Your task to perform on an android device: change notifications settings Image 0: 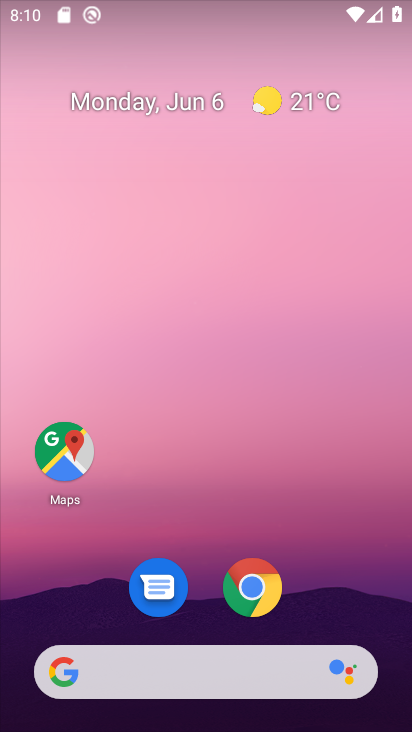
Step 0: drag from (298, 554) to (361, 145)
Your task to perform on an android device: change notifications settings Image 1: 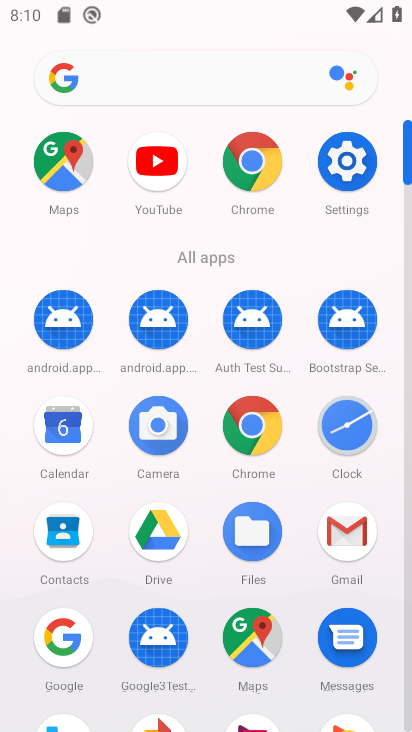
Step 1: click (354, 169)
Your task to perform on an android device: change notifications settings Image 2: 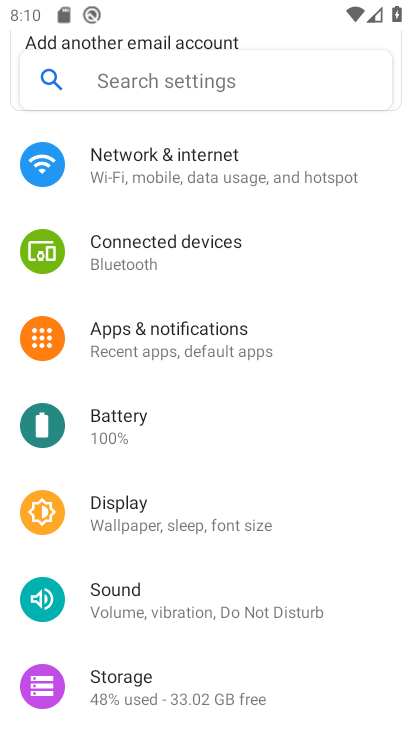
Step 2: click (231, 356)
Your task to perform on an android device: change notifications settings Image 3: 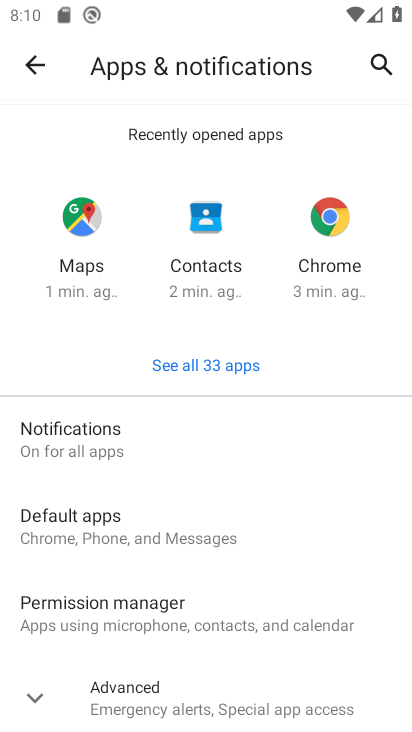
Step 3: click (131, 452)
Your task to perform on an android device: change notifications settings Image 4: 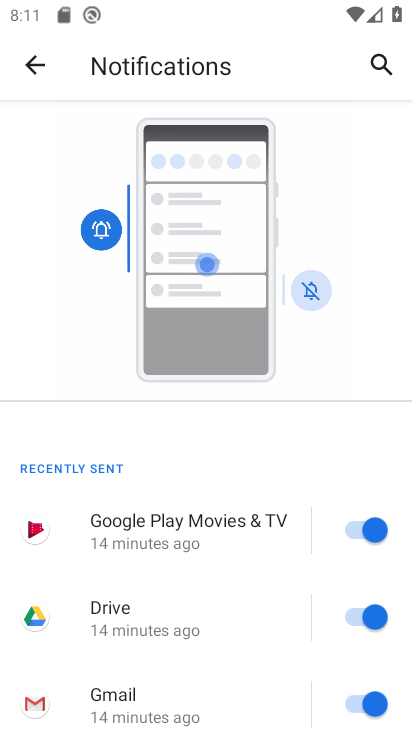
Step 4: drag from (232, 660) to (222, 284)
Your task to perform on an android device: change notifications settings Image 5: 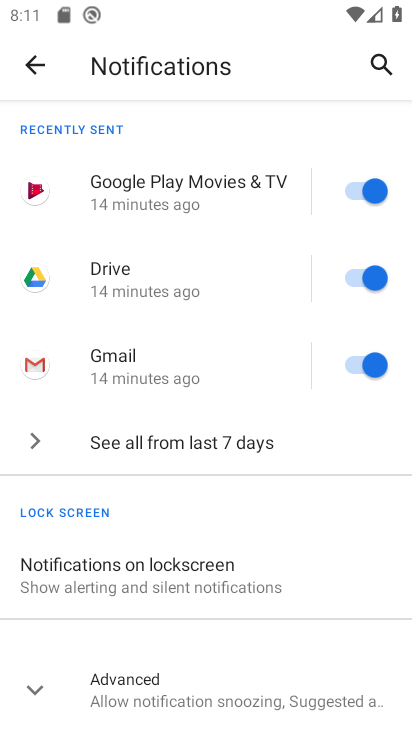
Step 5: click (357, 272)
Your task to perform on an android device: change notifications settings Image 6: 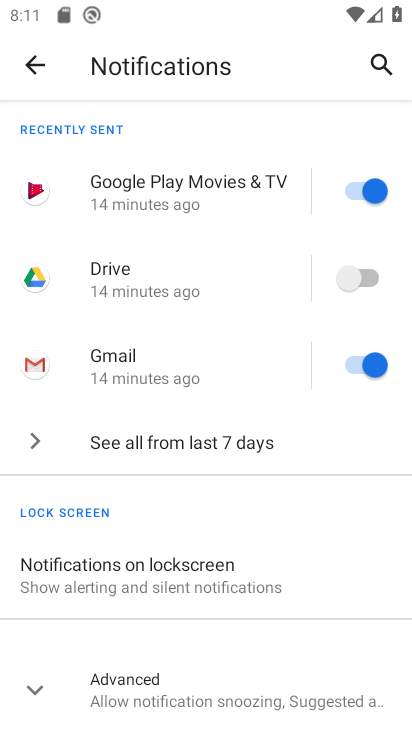
Step 6: task complete